Your task to perform on an android device: move a message to another label in the gmail app Image 0: 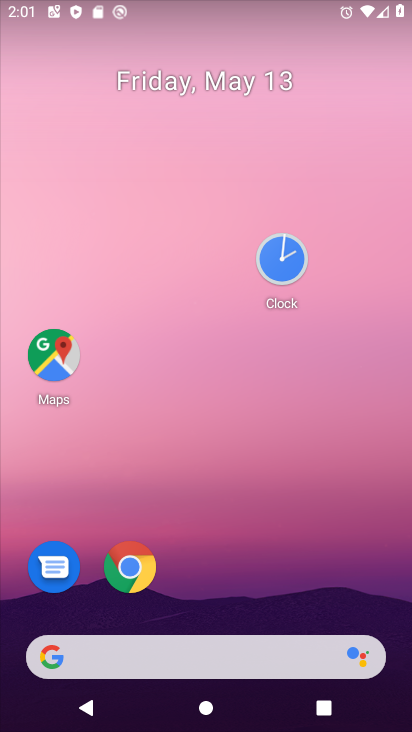
Step 0: drag from (362, 571) to (327, 231)
Your task to perform on an android device: move a message to another label in the gmail app Image 1: 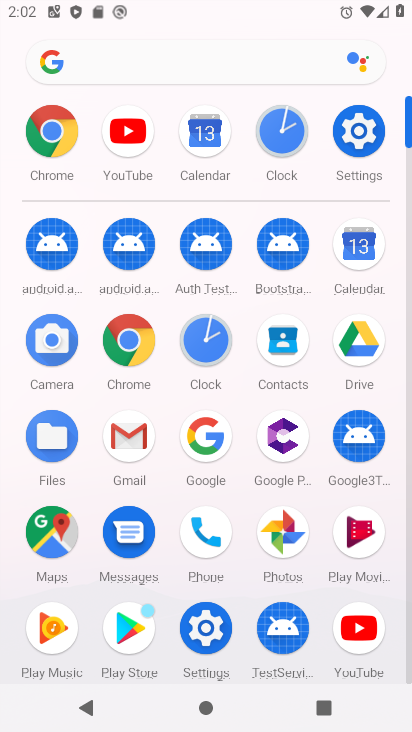
Step 1: click (123, 439)
Your task to perform on an android device: move a message to another label in the gmail app Image 2: 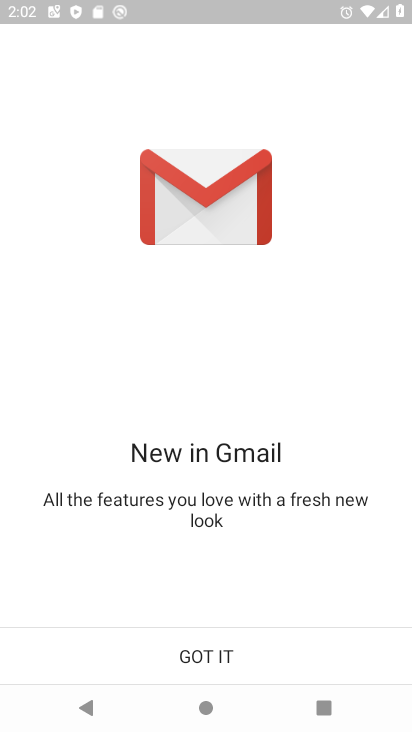
Step 2: click (163, 659)
Your task to perform on an android device: move a message to another label in the gmail app Image 3: 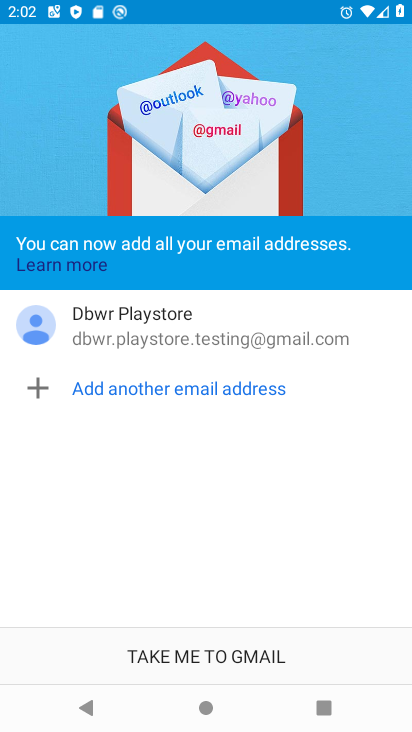
Step 3: click (163, 659)
Your task to perform on an android device: move a message to another label in the gmail app Image 4: 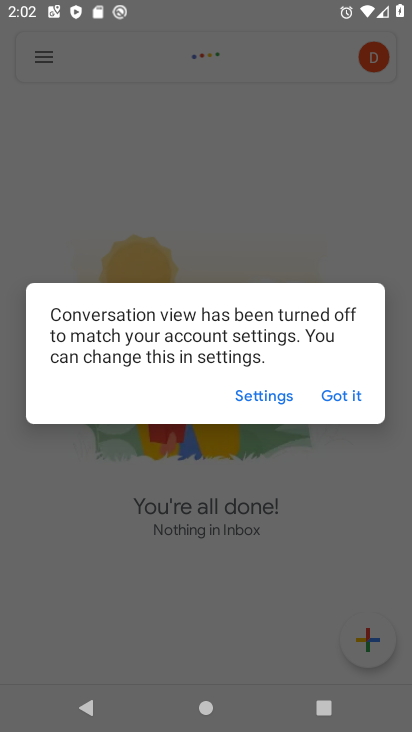
Step 4: click (344, 414)
Your task to perform on an android device: move a message to another label in the gmail app Image 5: 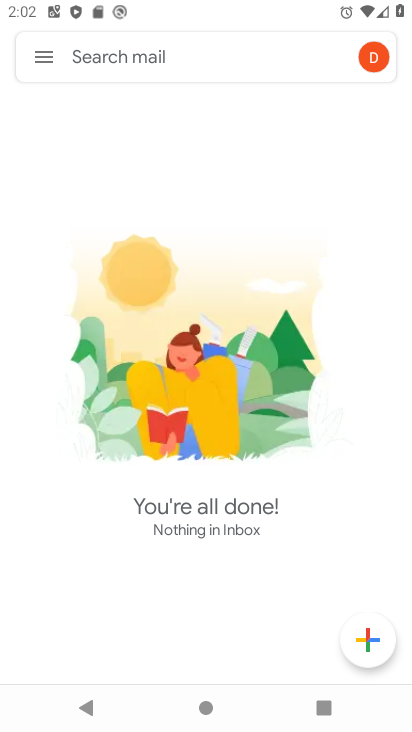
Step 5: click (48, 78)
Your task to perform on an android device: move a message to another label in the gmail app Image 6: 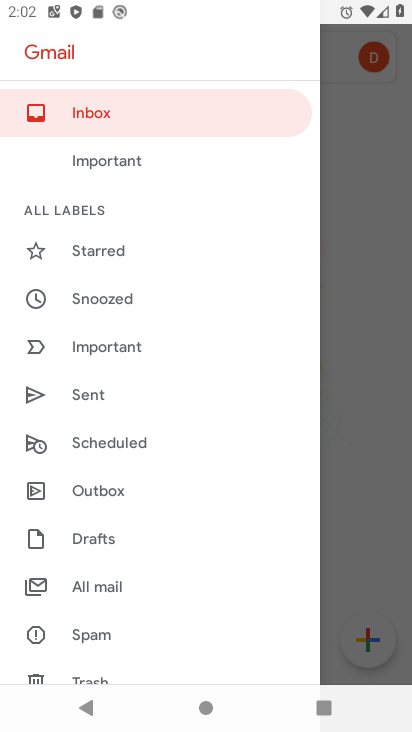
Step 6: click (118, 591)
Your task to perform on an android device: move a message to another label in the gmail app Image 7: 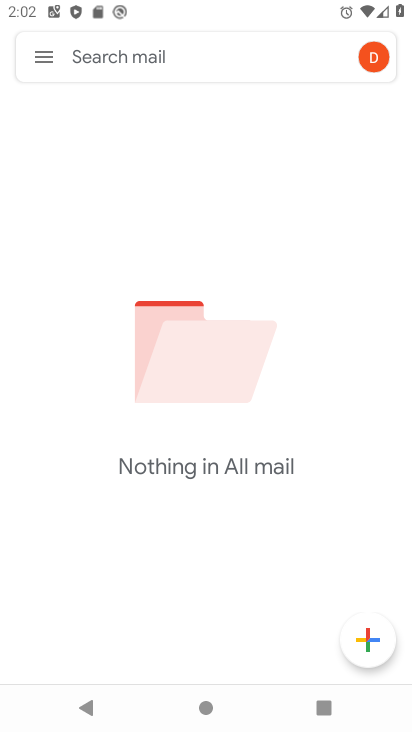
Step 7: task complete